Your task to perform on an android device: Add sony triple a to the cart on bestbuy, then select checkout. Image 0: 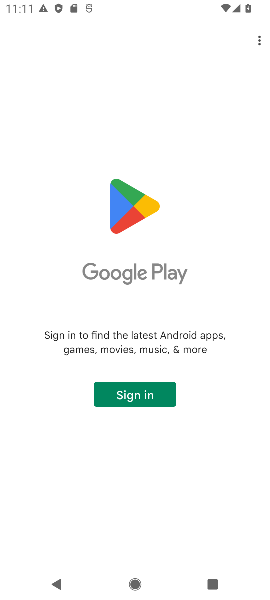
Step 0: press home button
Your task to perform on an android device: Add sony triple a to the cart on bestbuy, then select checkout. Image 1: 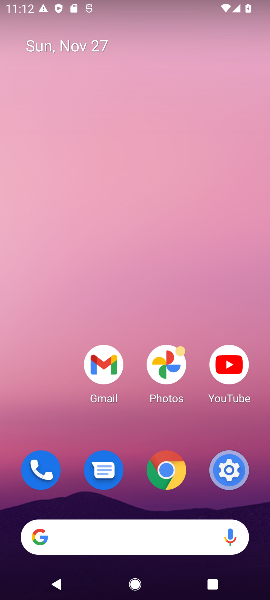
Step 1: click (158, 546)
Your task to perform on an android device: Add sony triple a to the cart on bestbuy, then select checkout. Image 2: 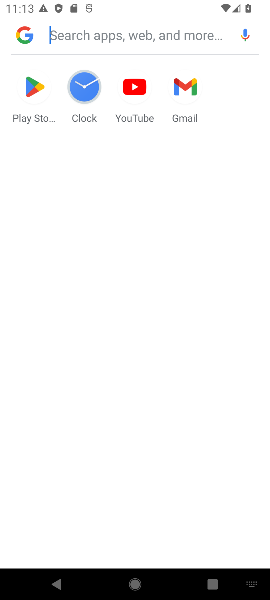
Step 2: type "bestbuy"
Your task to perform on an android device: Add sony triple a to the cart on bestbuy, then select checkout. Image 3: 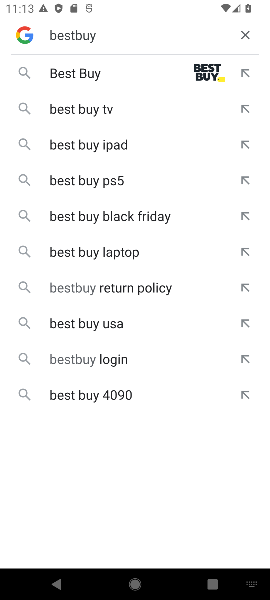
Step 3: click (65, 84)
Your task to perform on an android device: Add sony triple a to the cart on bestbuy, then select checkout. Image 4: 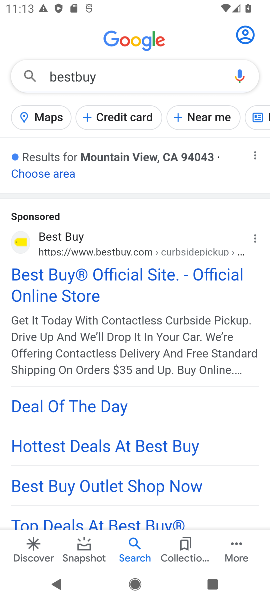
Step 4: click (76, 268)
Your task to perform on an android device: Add sony triple a to the cart on bestbuy, then select checkout. Image 5: 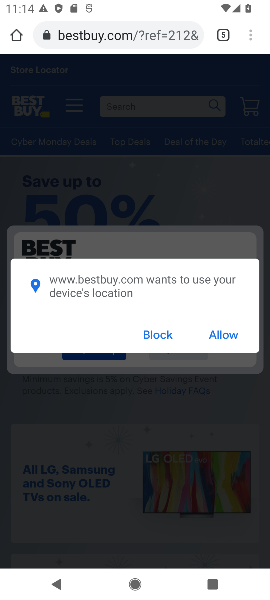
Step 5: task complete